Your task to perform on an android device: Open ESPN.com Image 0: 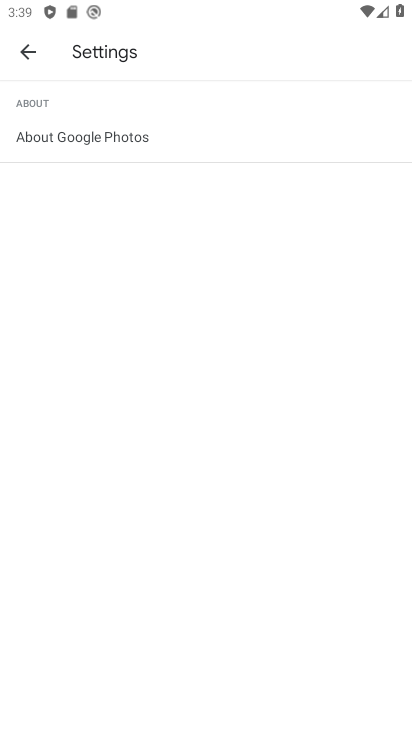
Step 0: press home button
Your task to perform on an android device: Open ESPN.com Image 1: 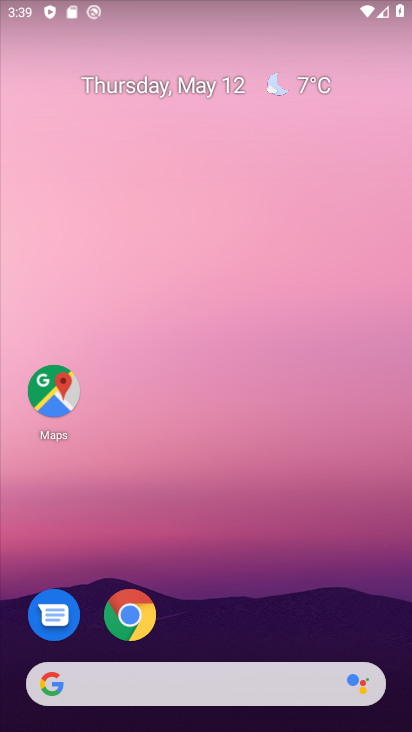
Step 1: click (130, 609)
Your task to perform on an android device: Open ESPN.com Image 2: 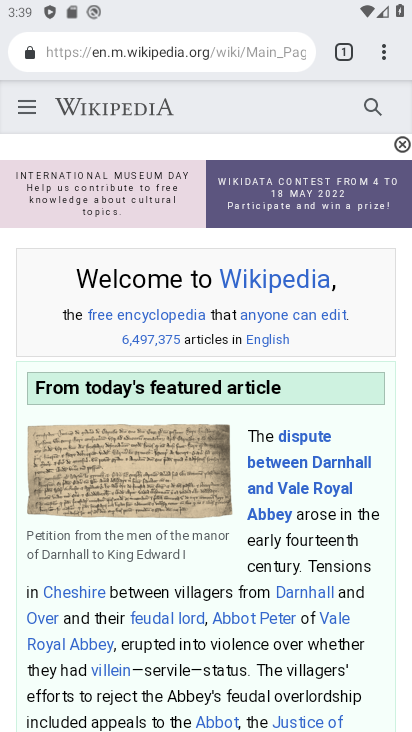
Step 2: click (219, 48)
Your task to perform on an android device: Open ESPN.com Image 3: 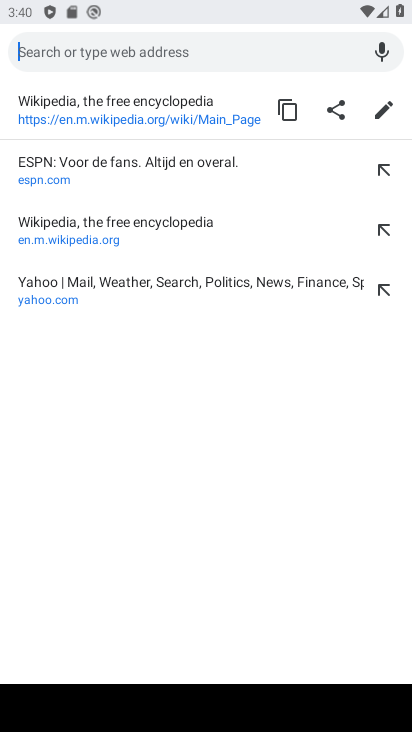
Step 3: type "espn.com"
Your task to perform on an android device: Open ESPN.com Image 4: 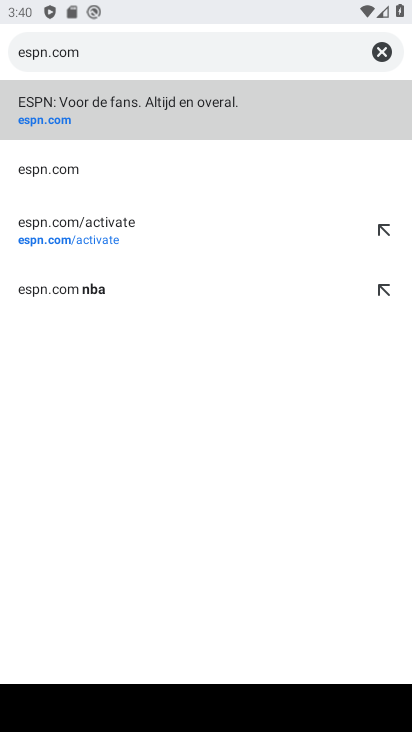
Step 4: click (90, 112)
Your task to perform on an android device: Open ESPN.com Image 5: 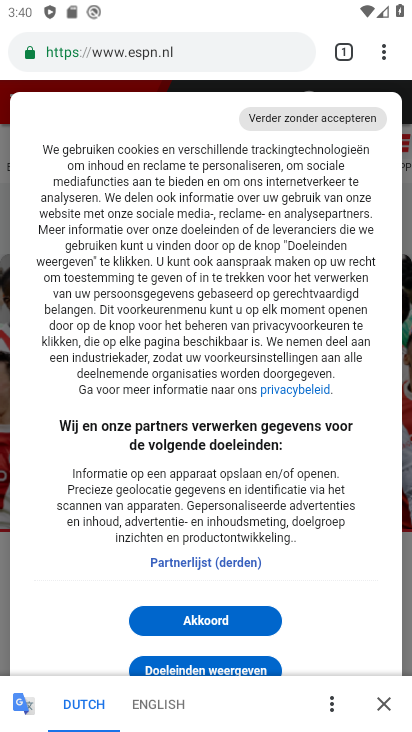
Step 5: click (212, 625)
Your task to perform on an android device: Open ESPN.com Image 6: 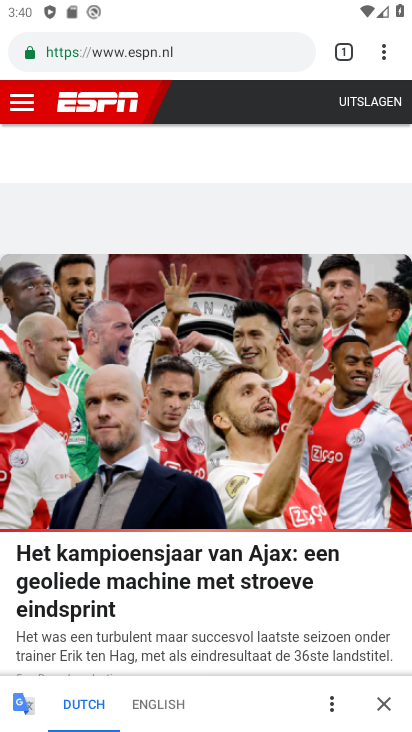
Step 6: task complete